Your task to perform on an android device: See recent photos Image 0: 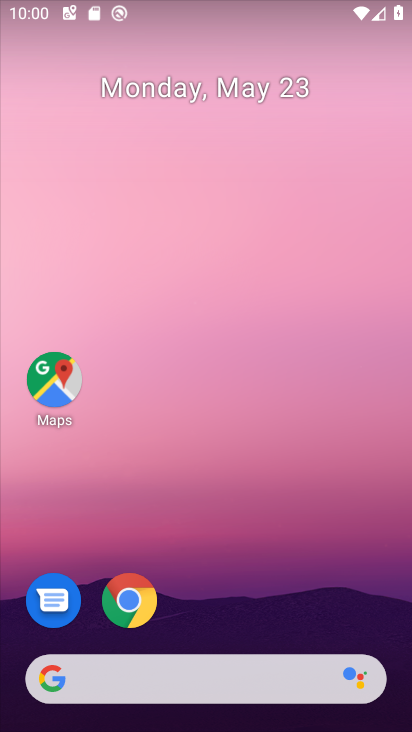
Step 0: drag from (218, 725) to (223, 137)
Your task to perform on an android device: See recent photos Image 1: 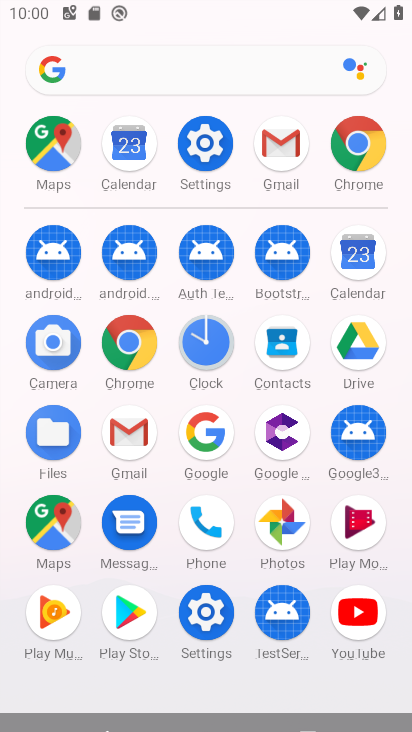
Step 1: click (274, 522)
Your task to perform on an android device: See recent photos Image 2: 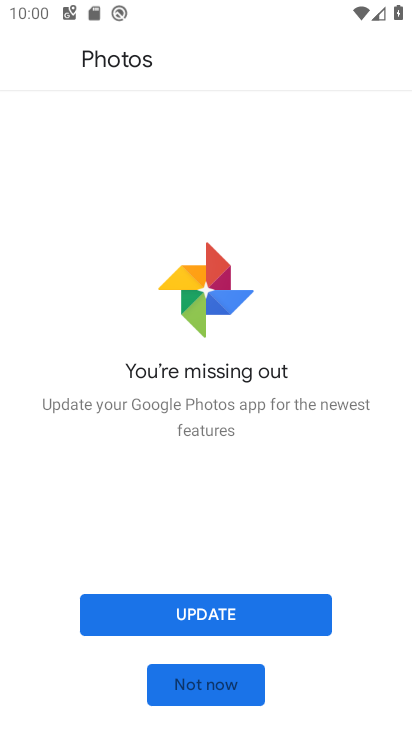
Step 2: click (221, 612)
Your task to perform on an android device: See recent photos Image 3: 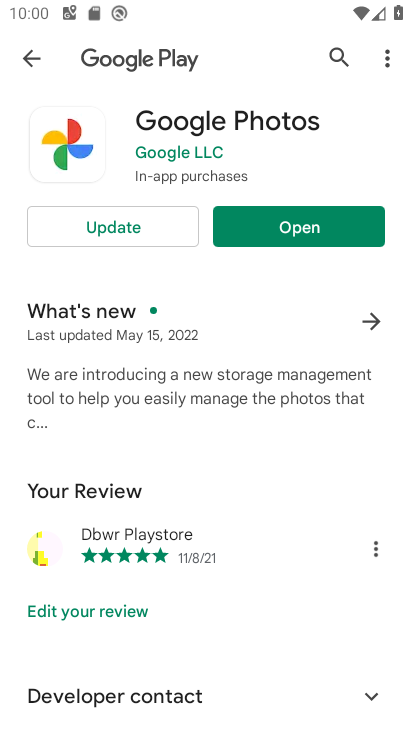
Step 3: click (166, 226)
Your task to perform on an android device: See recent photos Image 4: 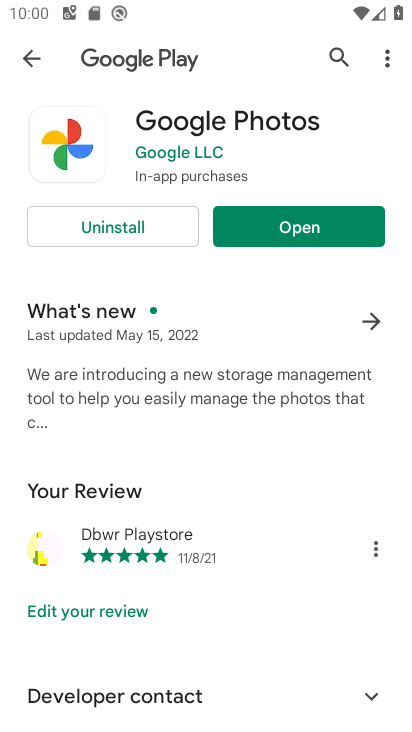
Step 4: click (284, 228)
Your task to perform on an android device: See recent photos Image 5: 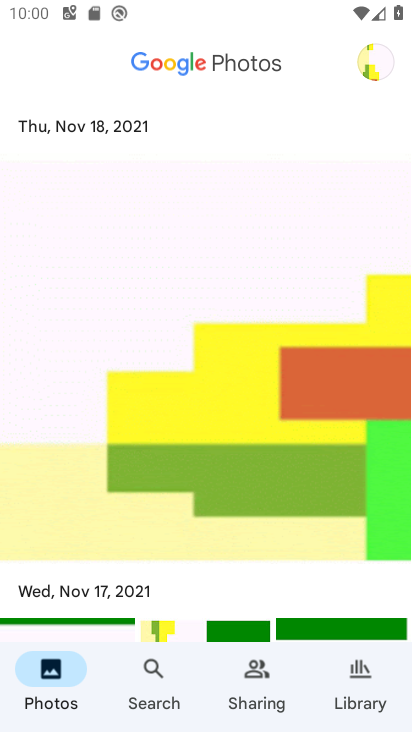
Step 5: drag from (235, 495) to (245, 276)
Your task to perform on an android device: See recent photos Image 6: 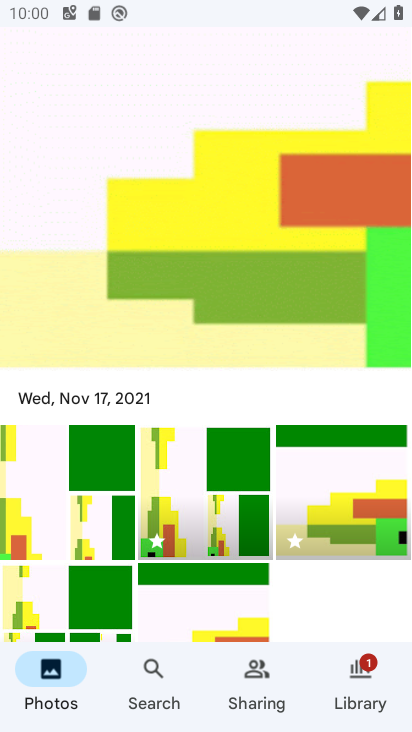
Step 6: click (83, 495)
Your task to perform on an android device: See recent photos Image 7: 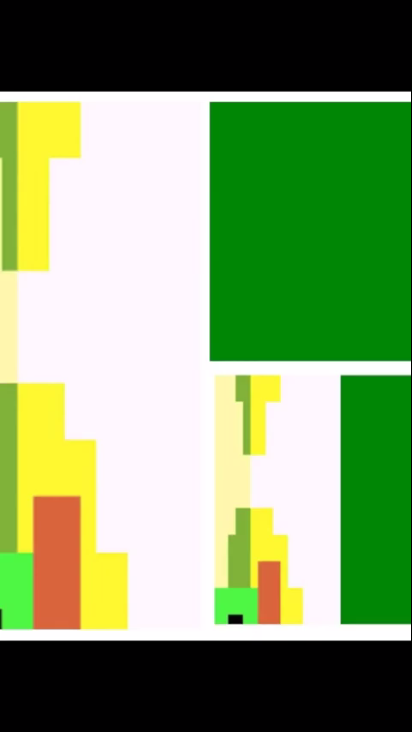
Step 7: task complete